Your task to perform on an android device: open wifi settings Image 0: 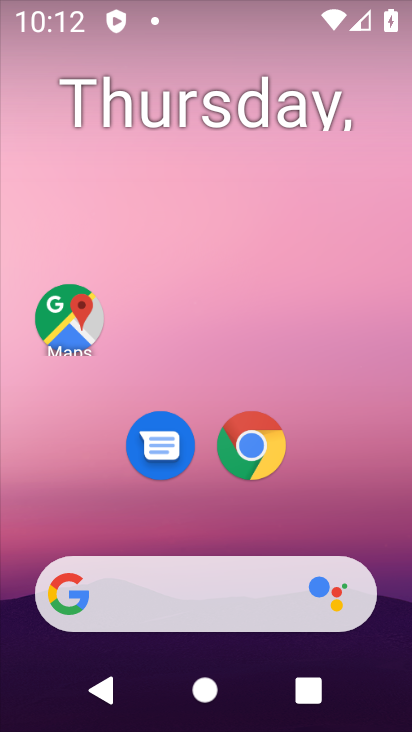
Step 0: drag from (235, 633) to (241, 101)
Your task to perform on an android device: open wifi settings Image 1: 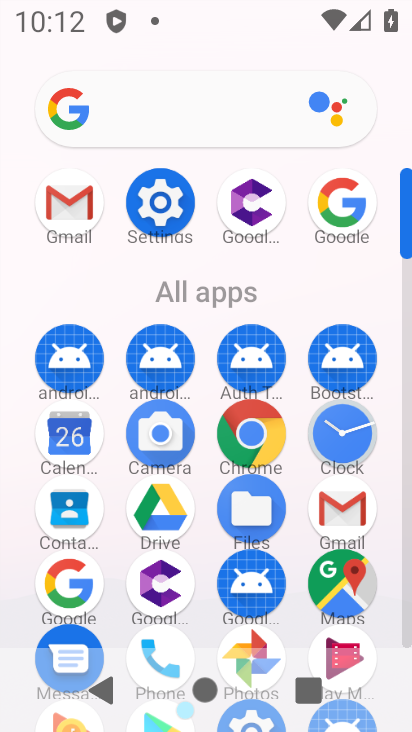
Step 1: click (159, 209)
Your task to perform on an android device: open wifi settings Image 2: 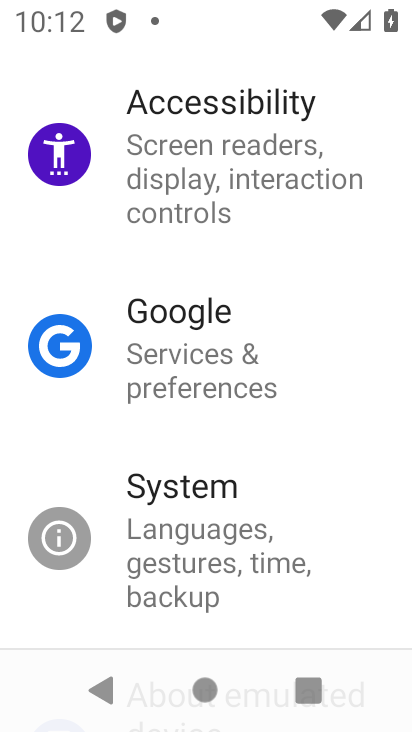
Step 2: drag from (355, 99) to (360, 463)
Your task to perform on an android device: open wifi settings Image 3: 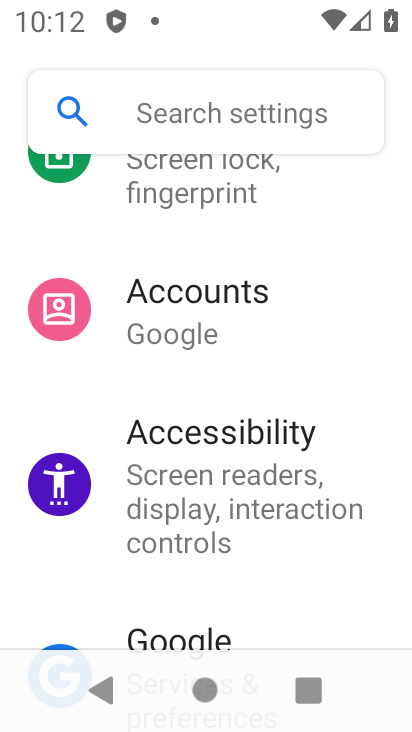
Step 3: drag from (350, 187) to (344, 539)
Your task to perform on an android device: open wifi settings Image 4: 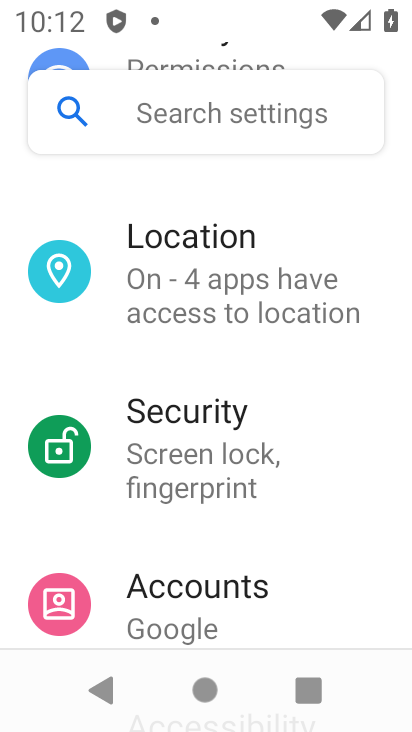
Step 4: drag from (342, 207) to (340, 622)
Your task to perform on an android device: open wifi settings Image 5: 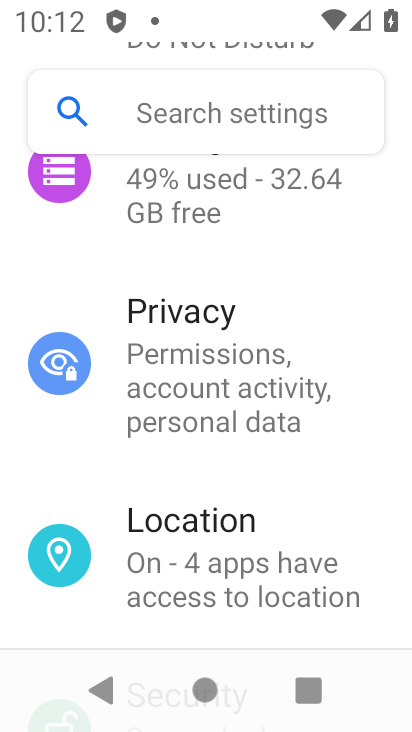
Step 5: drag from (358, 186) to (354, 616)
Your task to perform on an android device: open wifi settings Image 6: 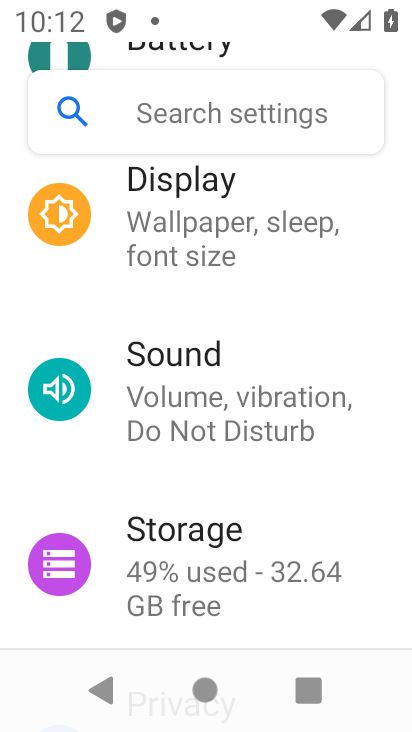
Step 6: drag from (360, 197) to (349, 604)
Your task to perform on an android device: open wifi settings Image 7: 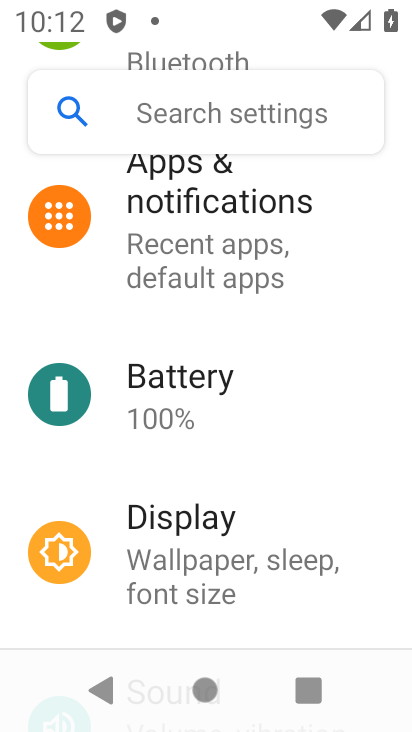
Step 7: drag from (347, 192) to (339, 670)
Your task to perform on an android device: open wifi settings Image 8: 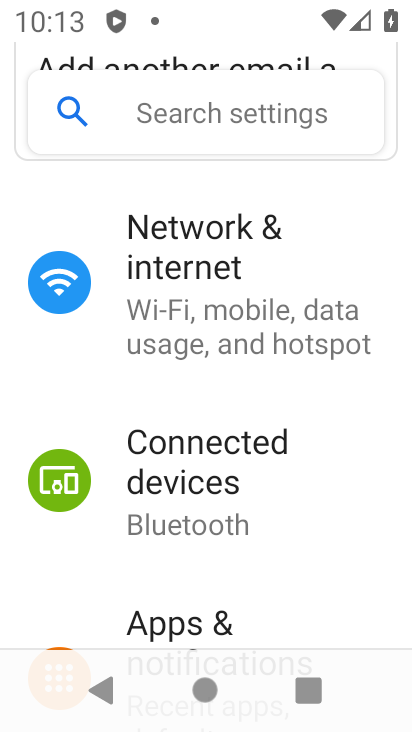
Step 8: drag from (363, 192) to (356, 594)
Your task to perform on an android device: open wifi settings Image 9: 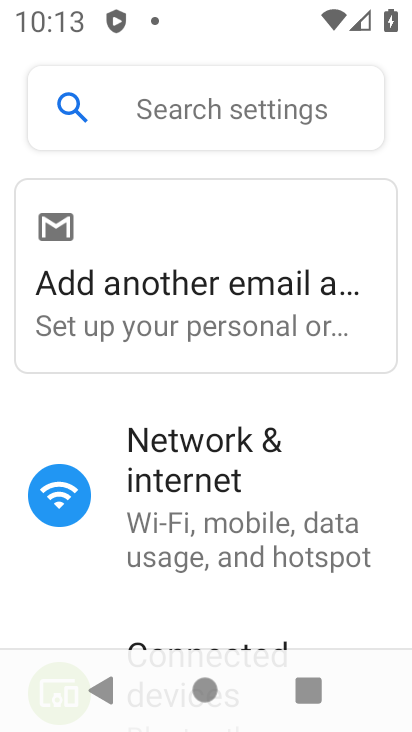
Step 9: click (176, 489)
Your task to perform on an android device: open wifi settings Image 10: 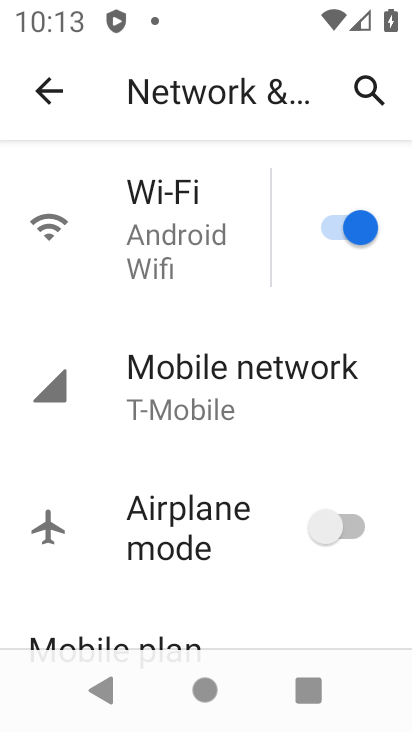
Step 10: click (154, 233)
Your task to perform on an android device: open wifi settings Image 11: 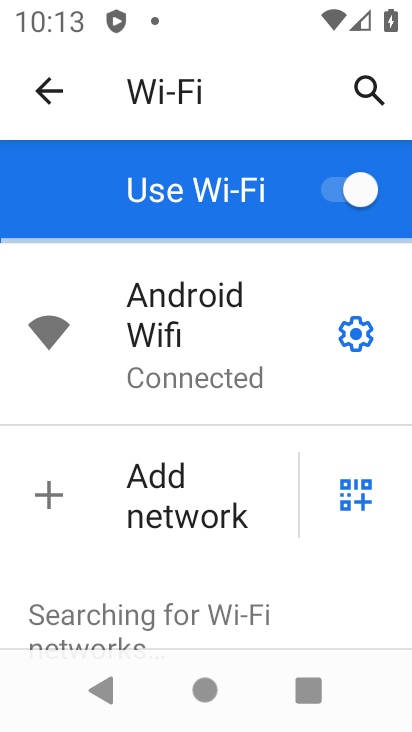
Step 11: task complete